Your task to perform on an android device: open wifi settings Image 0: 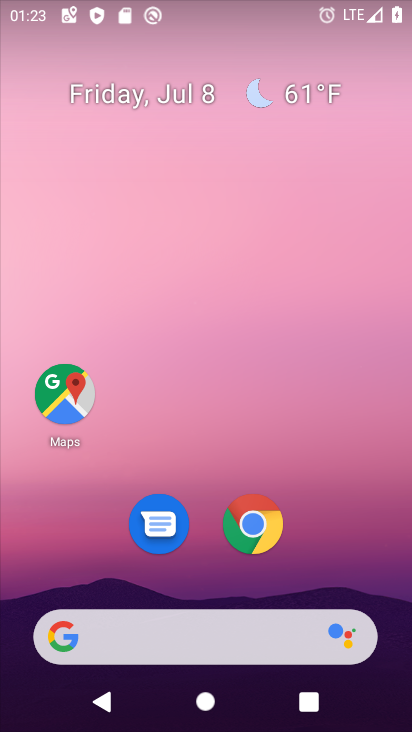
Step 0: drag from (254, 439) to (242, 72)
Your task to perform on an android device: open wifi settings Image 1: 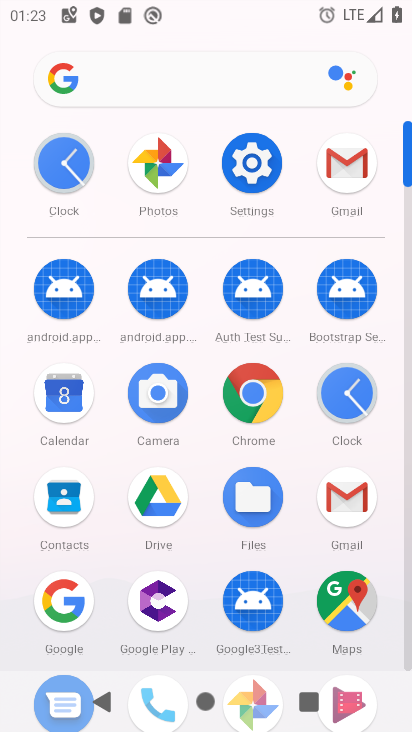
Step 1: click (260, 158)
Your task to perform on an android device: open wifi settings Image 2: 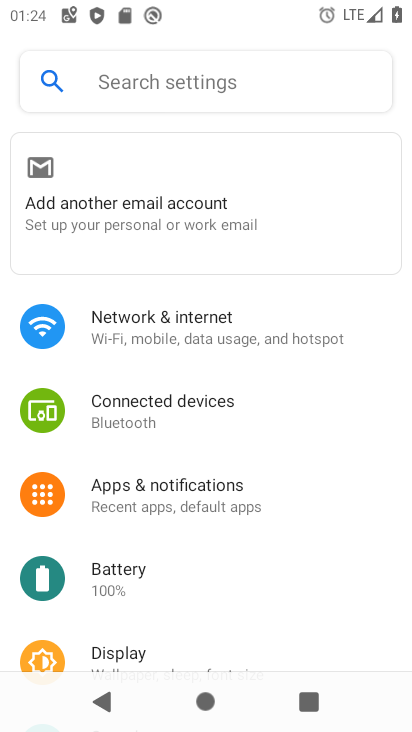
Step 2: click (212, 321)
Your task to perform on an android device: open wifi settings Image 3: 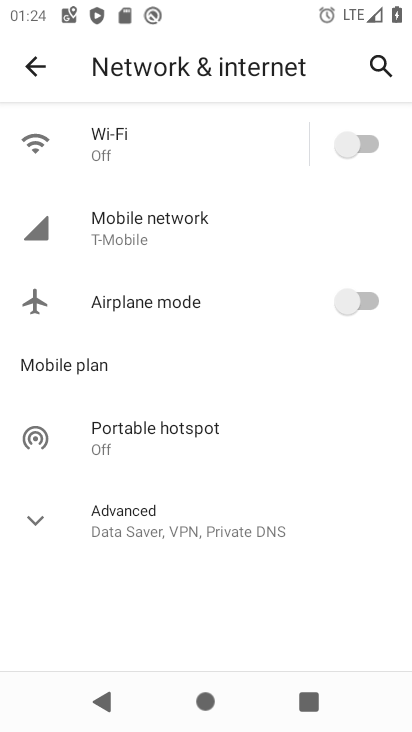
Step 3: click (179, 152)
Your task to perform on an android device: open wifi settings Image 4: 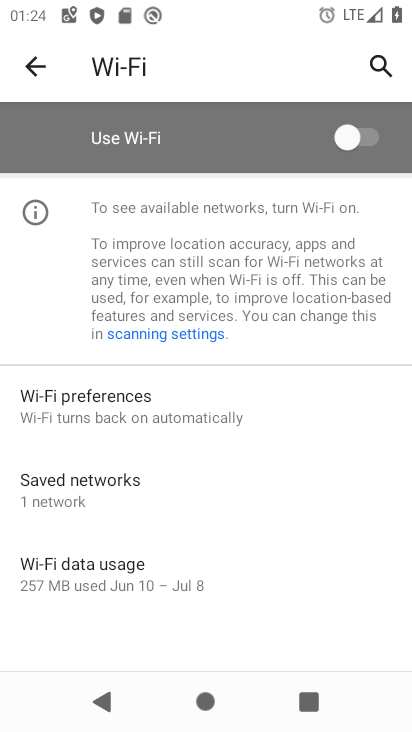
Step 4: task complete